Your task to perform on an android device: Open Wikipedia Image 0: 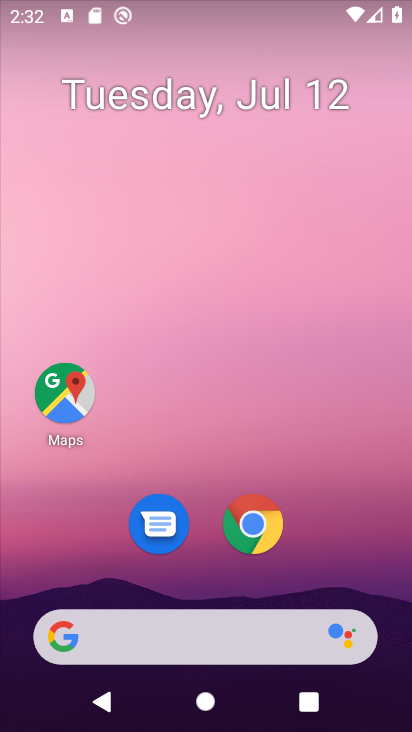
Step 0: click (271, 533)
Your task to perform on an android device: Open Wikipedia Image 1: 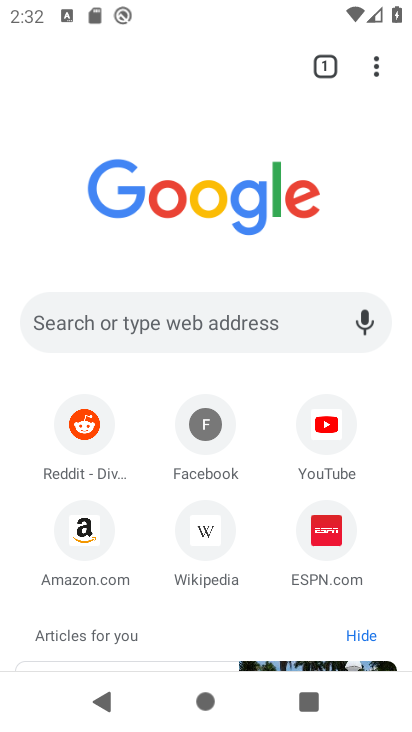
Step 1: click (207, 536)
Your task to perform on an android device: Open Wikipedia Image 2: 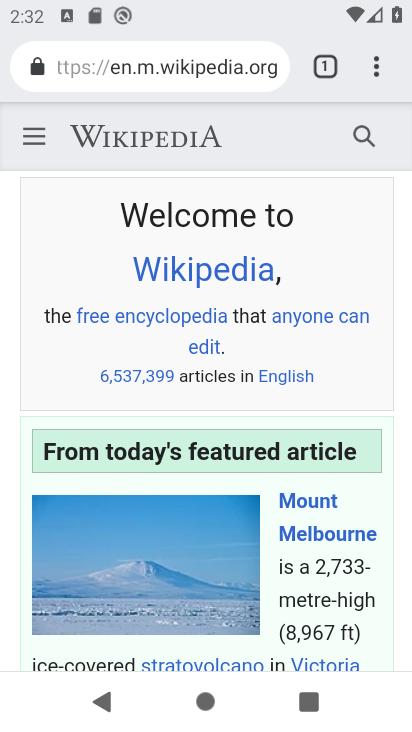
Step 2: task complete